Your task to perform on an android device: Open Chrome and go to settings Image 0: 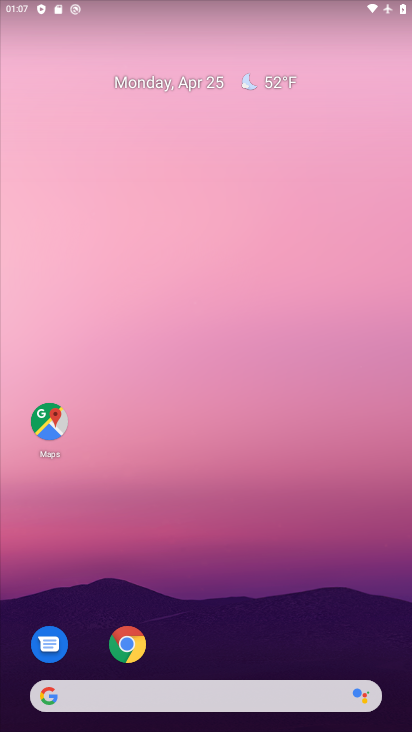
Step 0: click (128, 636)
Your task to perform on an android device: Open Chrome and go to settings Image 1: 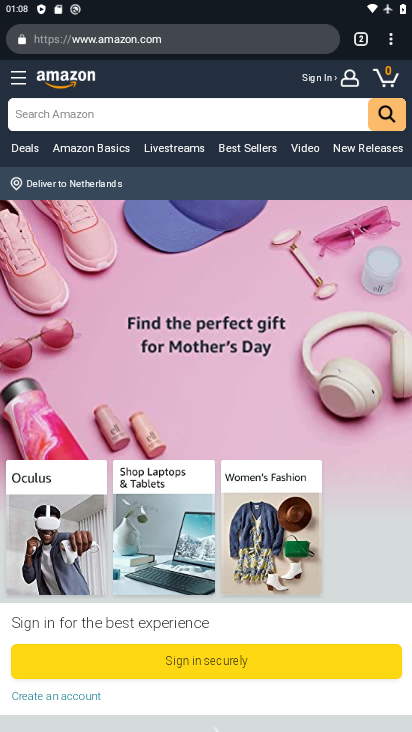
Step 1: click (382, 47)
Your task to perform on an android device: Open Chrome and go to settings Image 2: 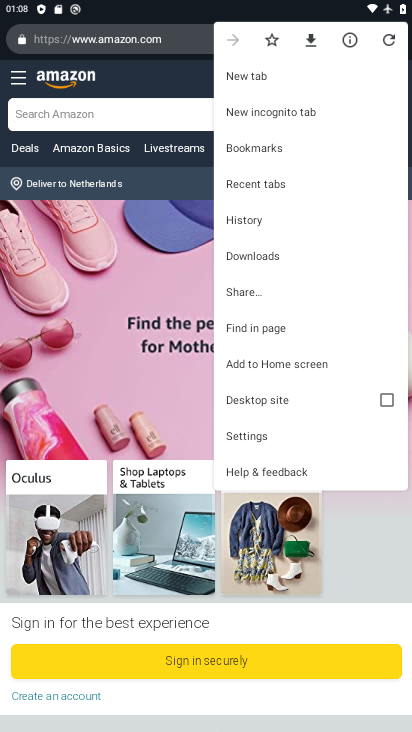
Step 2: click (265, 434)
Your task to perform on an android device: Open Chrome and go to settings Image 3: 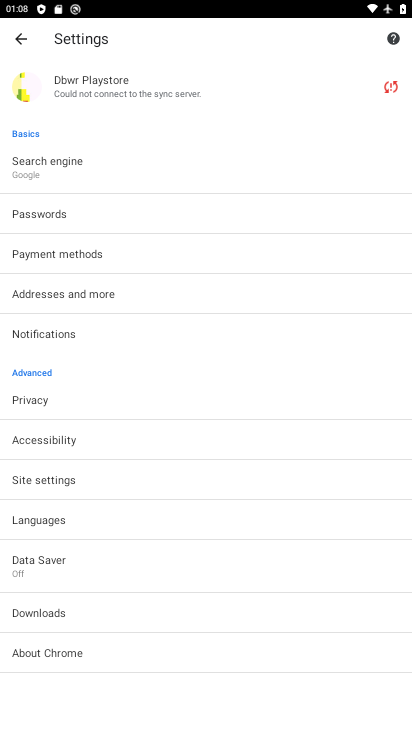
Step 3: task complete